Your task to perform on an android device: Go to notification settings Image 0: 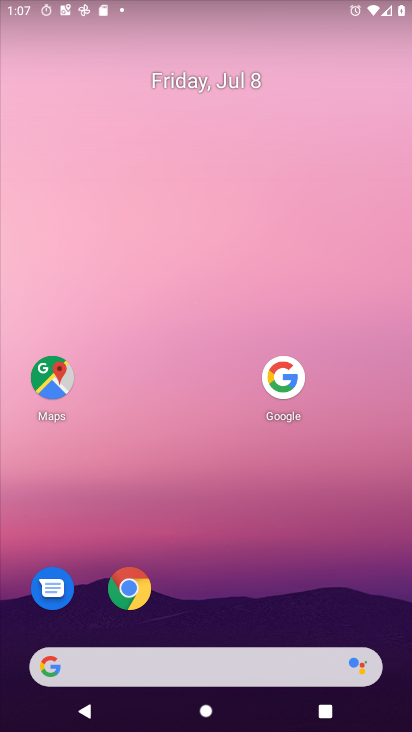
Step 0: drag from (155, 658) to (313, 93)
Your task to perform on an android device: Go to notification settings Image 1: 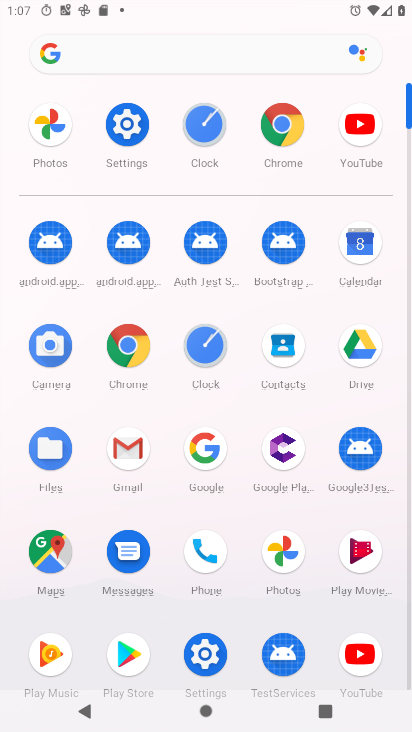
Step 1: click (120, 116)
Your task to perform on an android device: Go to notification settings Image 2: 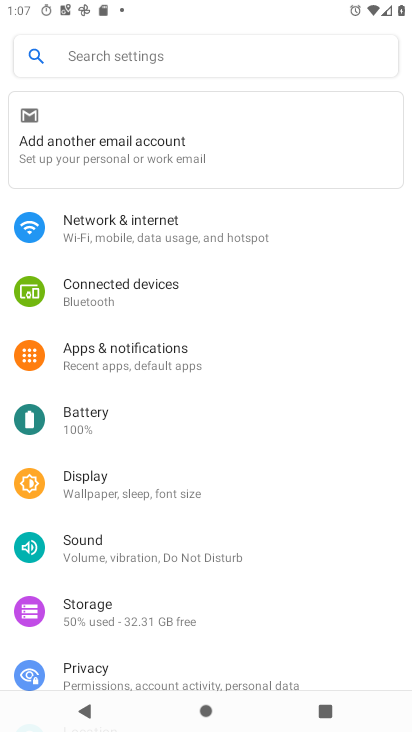
Step 2: click (117, 350)
Your task to perform on an android device: Go to notification settings Image 3: 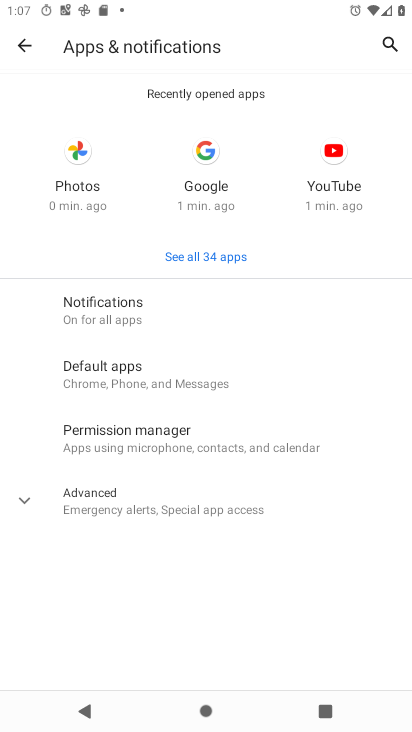
Step 3: click (123, 310)
Your task to perform on an android device: Go to notification settings Image 4: 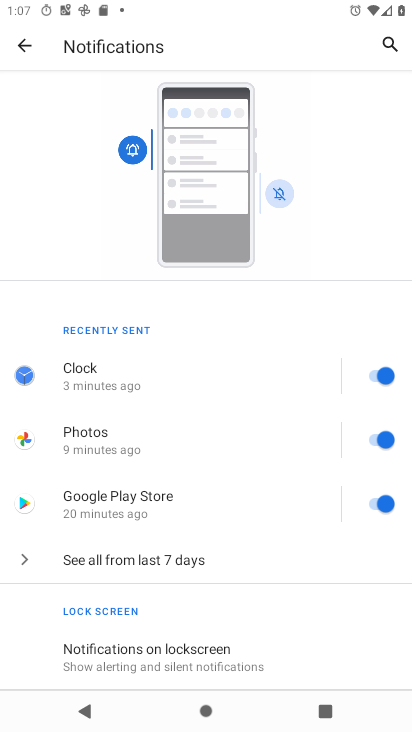
Step 4: task complete